Your task to perform on an android device: Open the web browser Image 0: 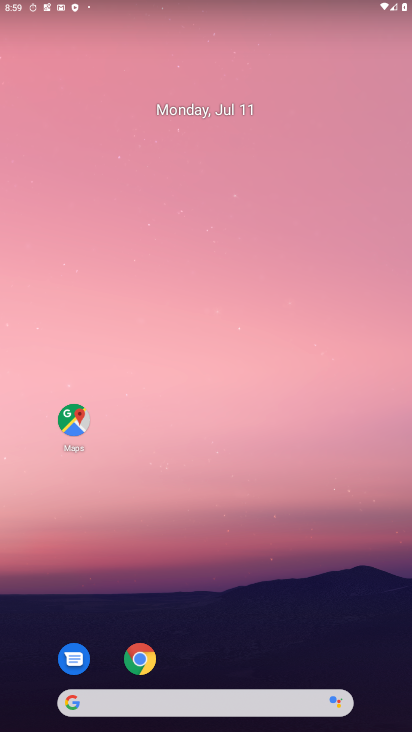
Step 0: drag from (291, 690) to (226, 155)
Your task to perform on an android device: Open the web browser Image 1: 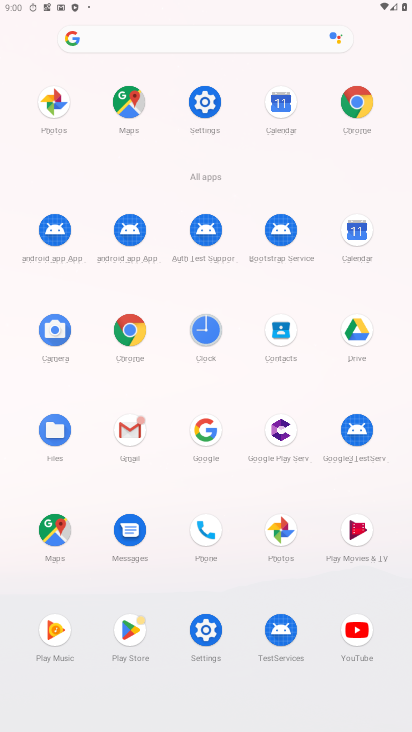
Step 1: task complete